Your task to perform on an android device: Go to Reddit.com Image 0: 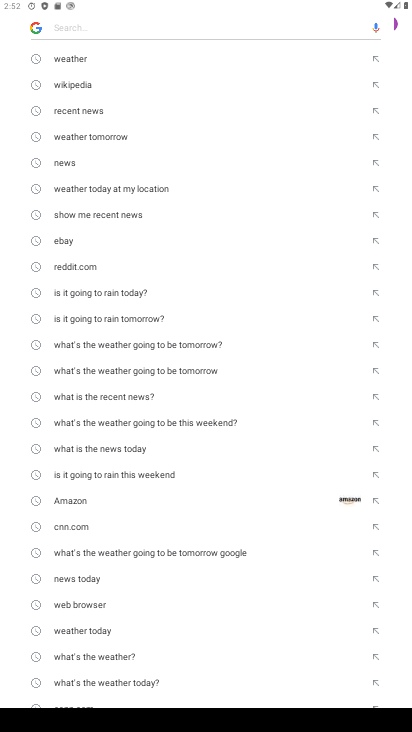
Step 0: press home button
Your task to perform on an android device: Go to Reddit.com Image 1: 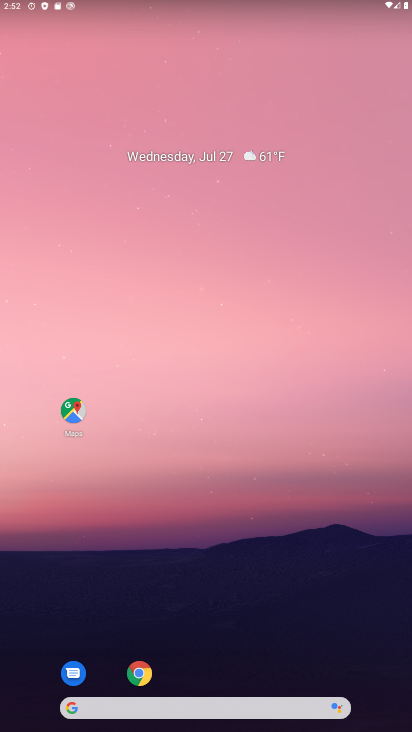
Step 1: click (98, 708)
Your task to perform on an android device: Go to Reddit.com Image 2: 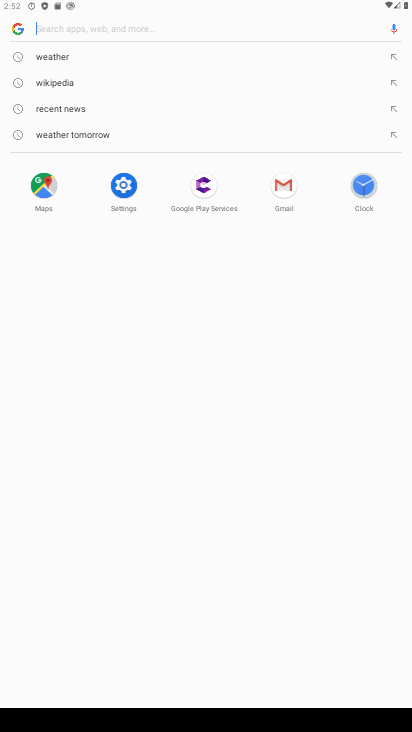
Step 2: type "Reddit.com"
Your task to perform on an android device: Go to Reddit.com Image 3: 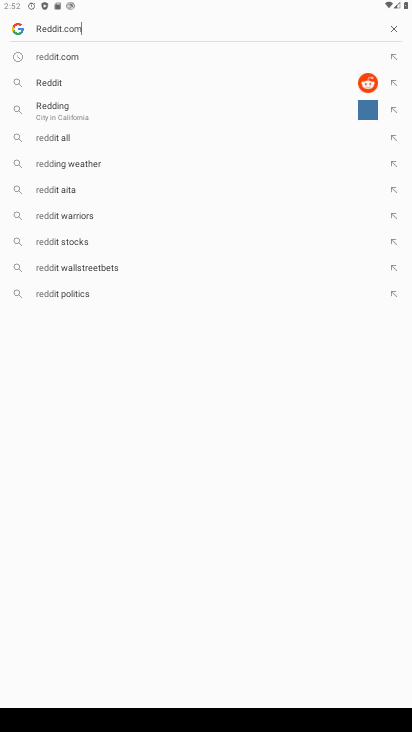
Step 3: type ""
Your task to perform on an android device: Go to Reddit.com Image 4: 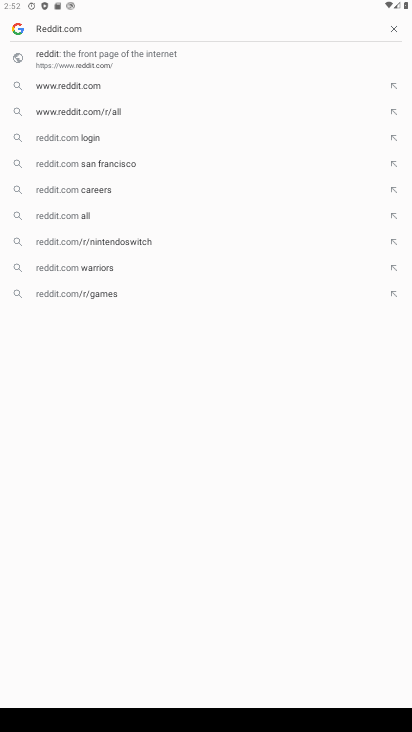
Step 4: type ""
Your task to perform on an android device: Go to Reddit.com Image 5: 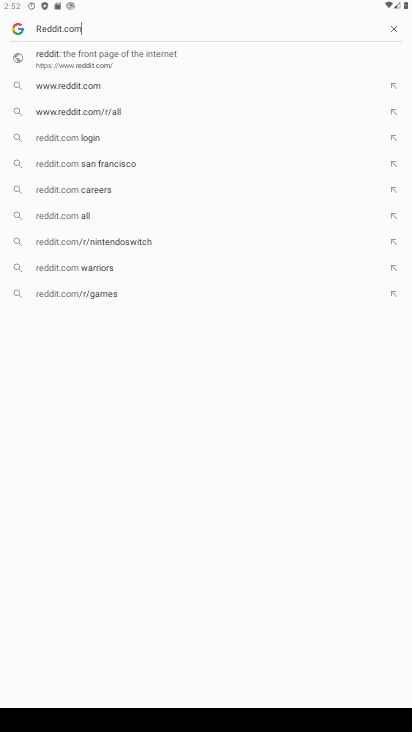
Step 5: type ""
Your task to perform on an android device: Go to Reddit.com Image 6: 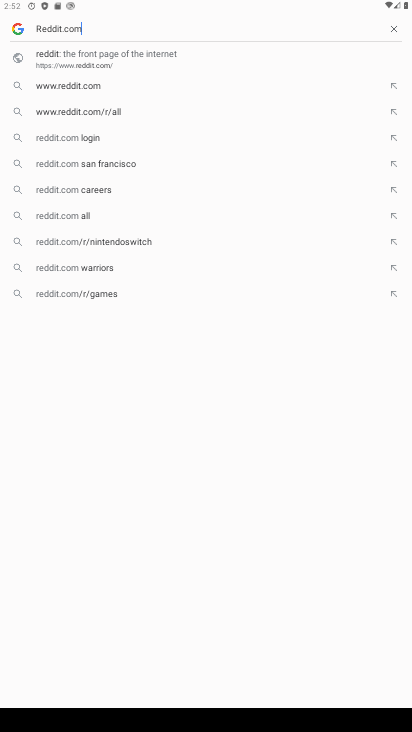
Step 6: task complete